Your task to perform on an android device: Open the phone app and click the voicemail tab. Image 0: 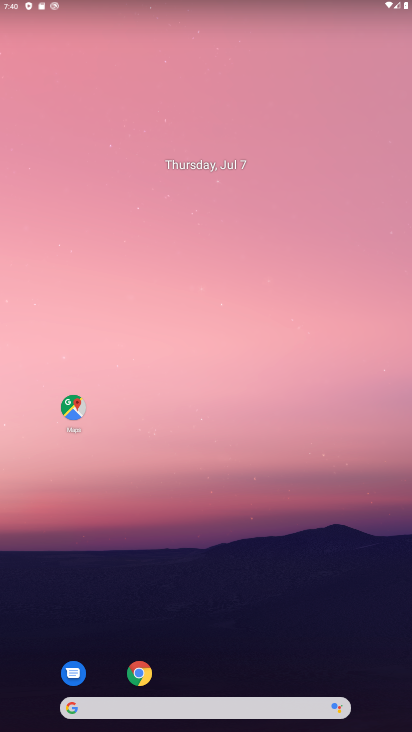
Step 0: drag from (266, 629) to (238, 145)
Your task to perform on an android device: Open the phone app and click the voicemail tab. Image 1: 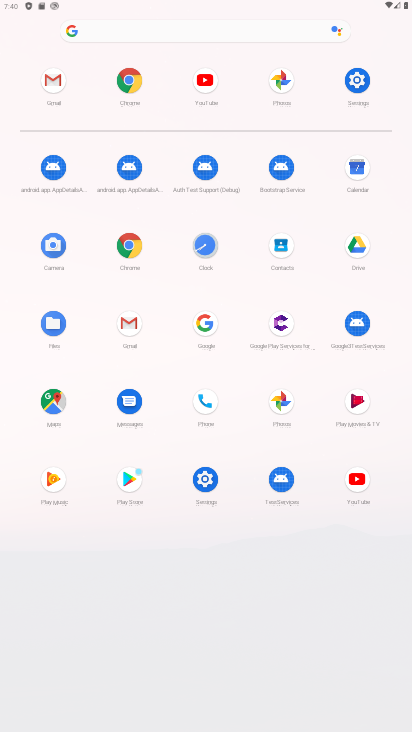
Step 1: click (204, 403)
Your task to perform on an android device: Open the phone app and click the voicemail tab. Image 2: 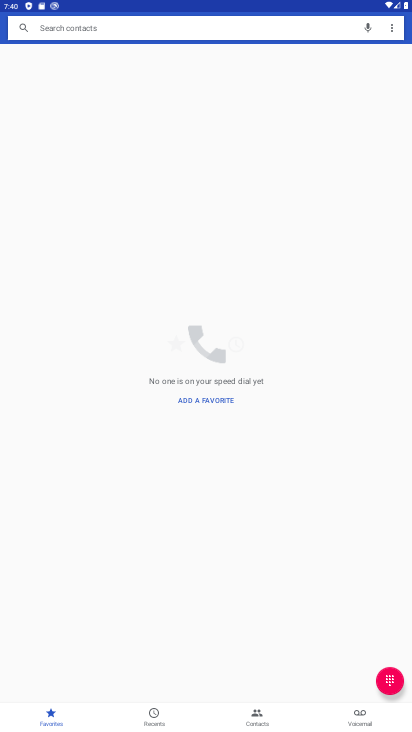
Step 2: click (357, 715)
Your task to perform on an android device: Open the phone app and click the voicemail tab. Image 3: 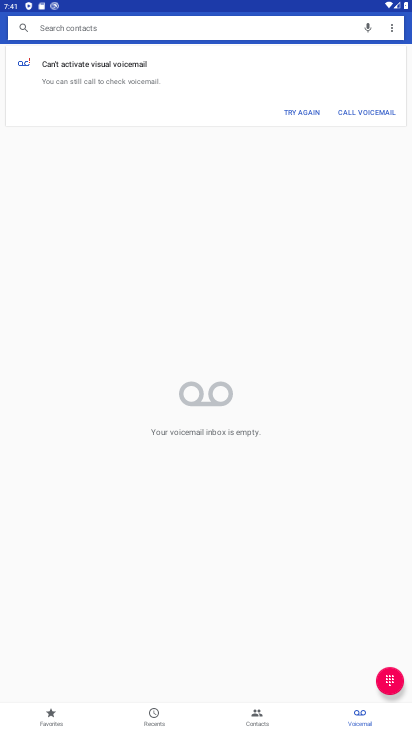
Step 3: task complete